Your task to perform on an android device: Go to Yahoo.com Image 0: 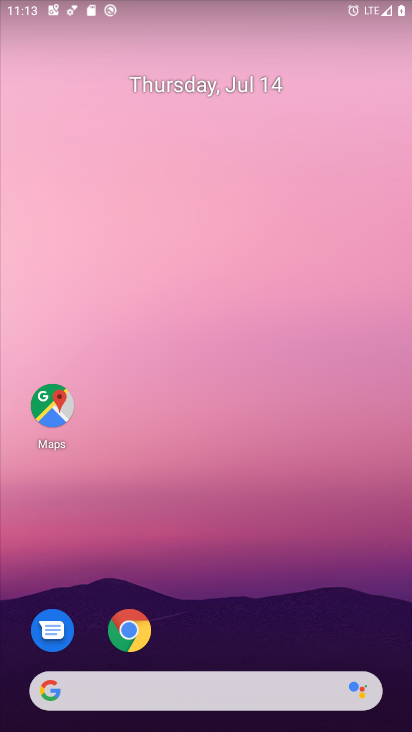
Step 0: drag from (249, 583) to (248, 138)
Your task to perform on an android device: Go to Yahoo.com Image 1: 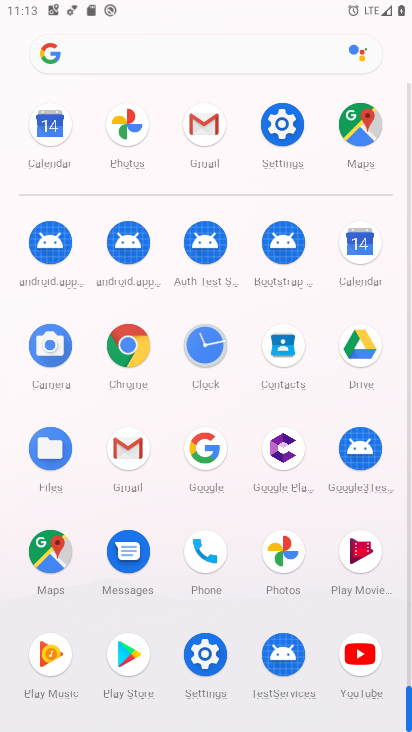
Step 1: click (87, 47)
Your task to perform on an android device: Go to Yahoo.com Image 2: 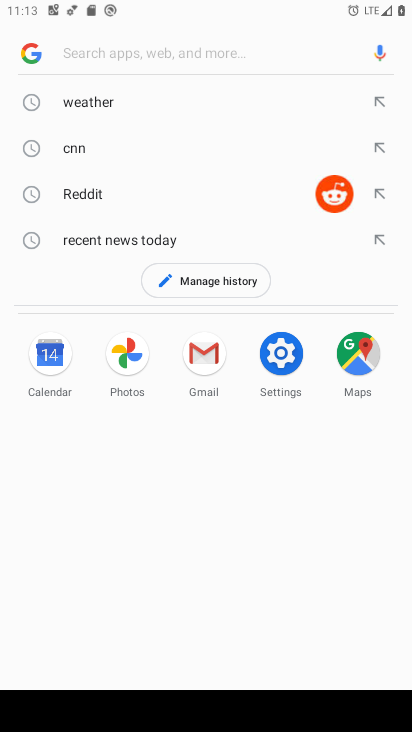
Step 2: type "Yahoo.com"
Your task to perform on an android device: Go to Yahoo.com Image 3: 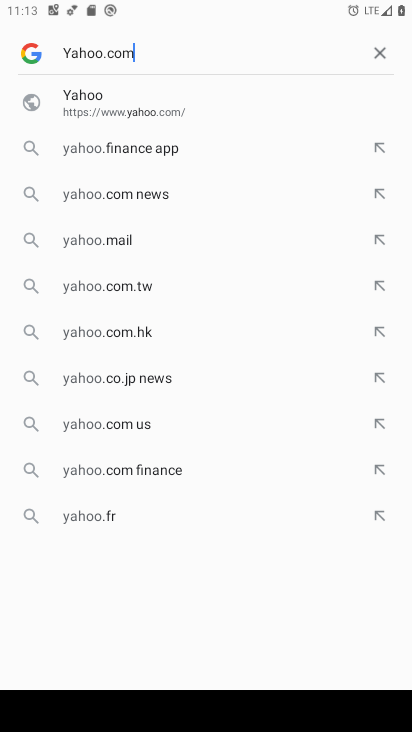
Step 3: type ""
Your task to perform on an android device: Go to Yahoo.com Image 4: 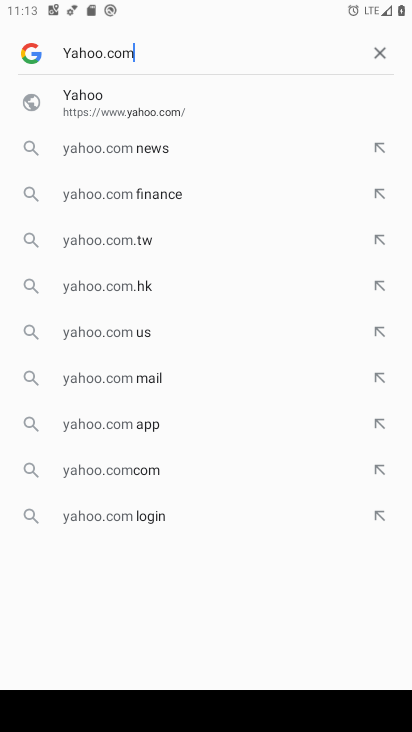
Step 4: click (120, 112)
Your task to perform on an android device: Go to Yahoo.com Image 5: 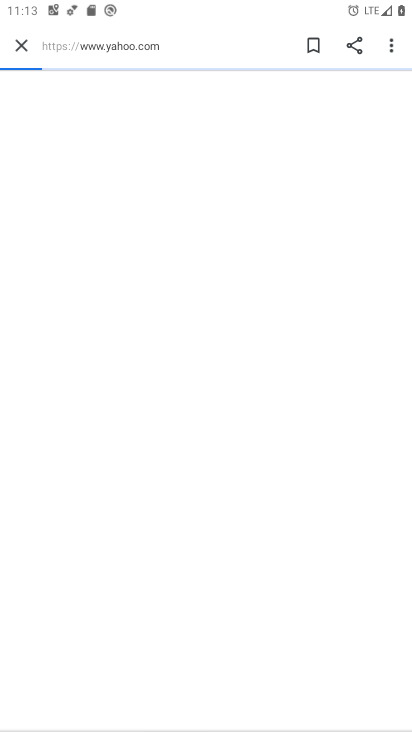
Step 5: click (196, 208)
Your task to perform on an android device: Go to Yahoo.com Image 6: 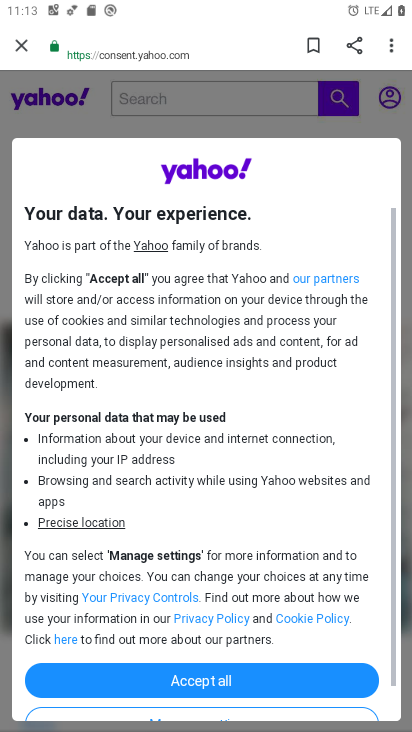
Step 6: task complete